Your task to perform on an android device: check out phone information Image 0: 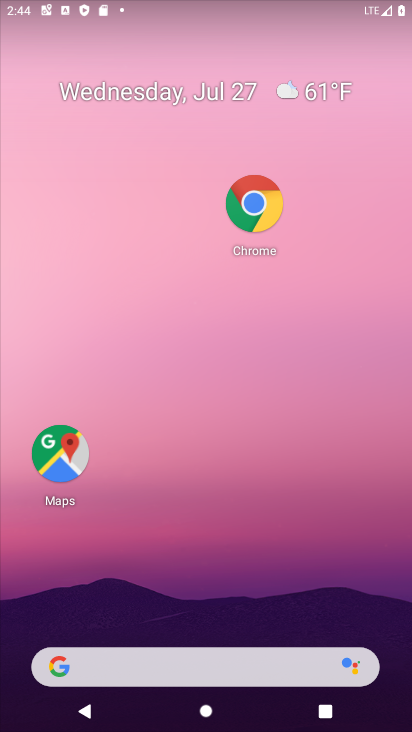
Step 0: drag from (238, 565) to (219, 201)
Your task to perform on an android device: check out phone information Image 1: 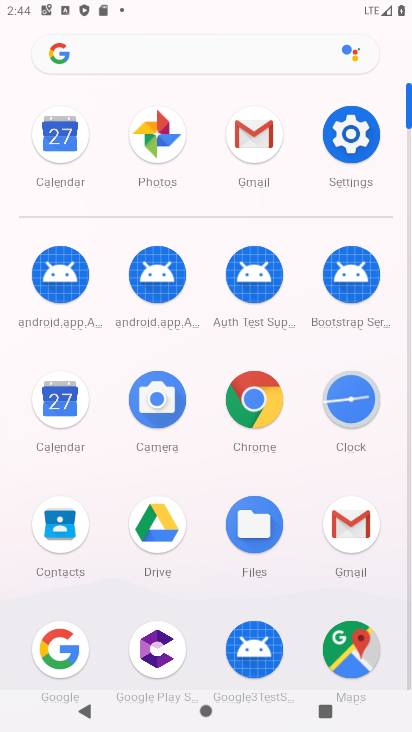
Step 1: click (332, 150)
Your task to perform on an android device: check out phone information Image 2: 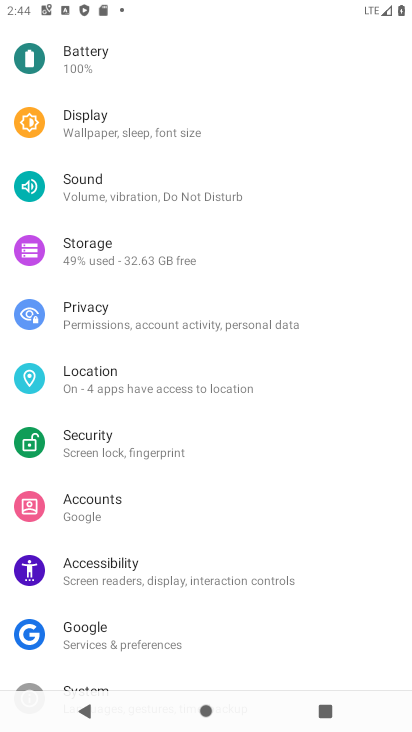
Step 2: drag from (202, 576) to (262, 190)
Your task to perform on an android device: check out phone information Image 3: 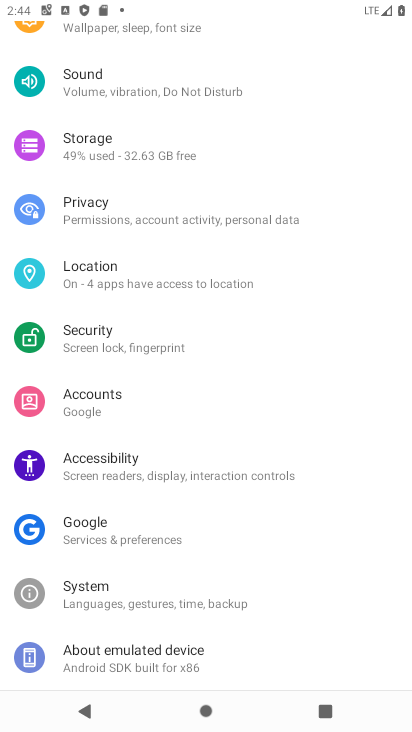
Step 3: click (227, 647)
Your task to perform on an android device: check out phone information Image 4: 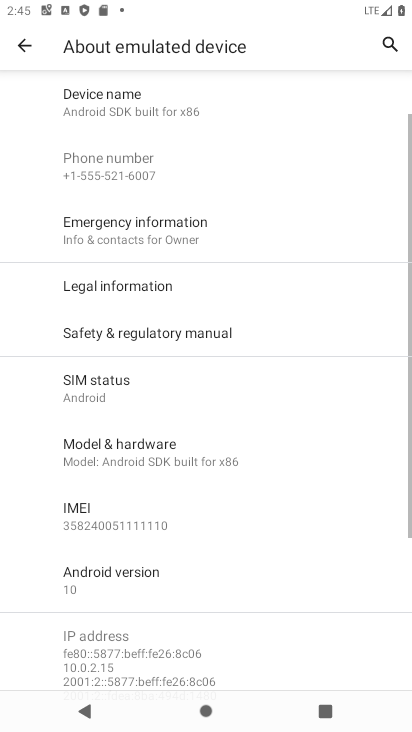
Step 4: task complete